Your task to perform on an android device: check android version Image 0: 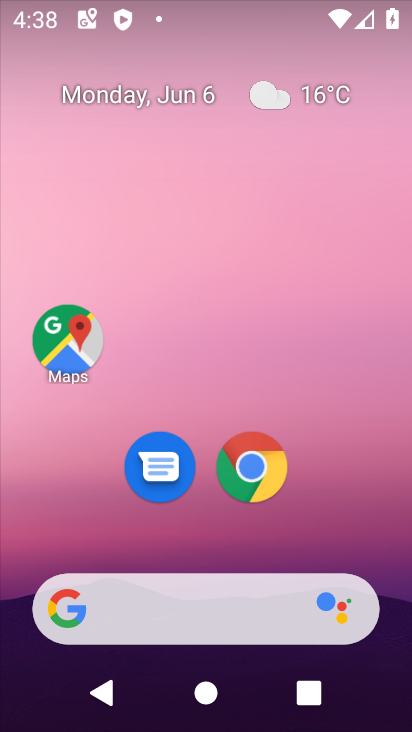
Step 0: drag from (95, 530) to (220, 209)
Your task to perform on an android device: check android version Image 1: 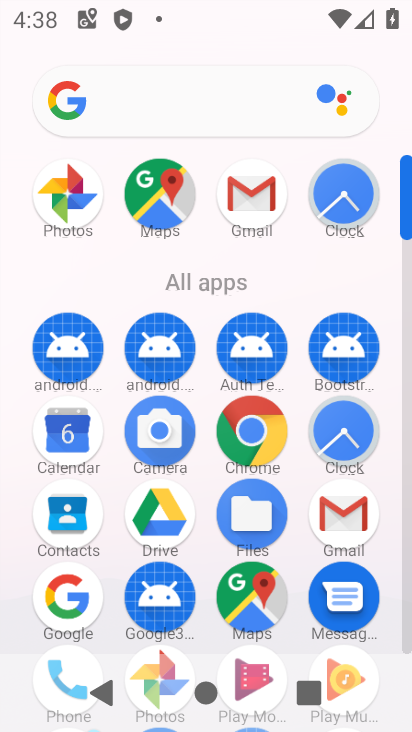
Step 1: drag from (182, 665) to (293, 382)
Your task to perform on an android device: check android version Image 2: 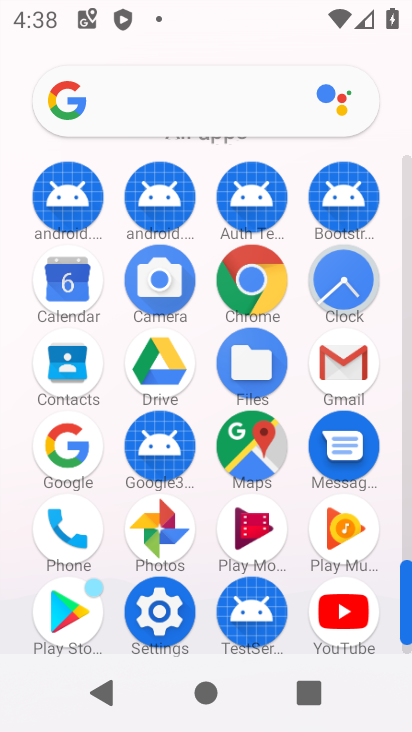
Step 2: click (164, 634)
Your task to perform on an android device: check android version Image 3: 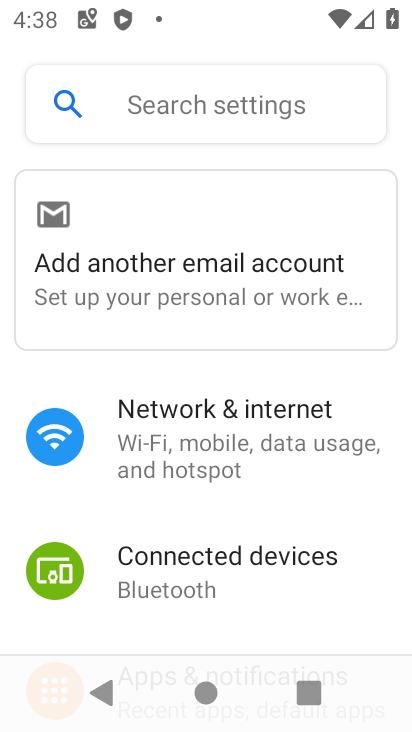
Step 3: drag from (229, 625) to (408, 236)
Your task to perform on an android device: check android version Image 4: 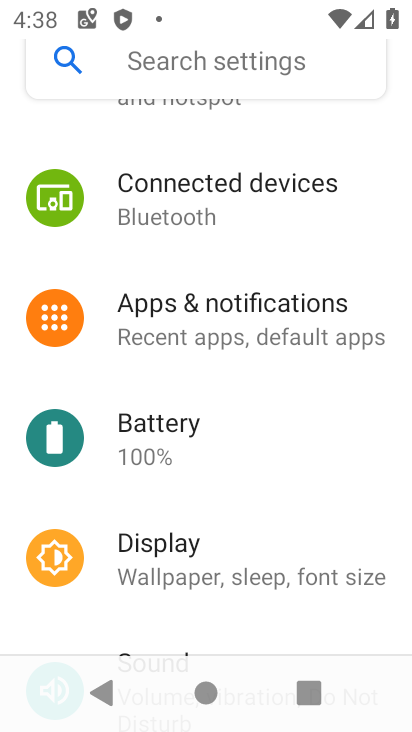
Step 4: drag from (185, 607) to (358, 126)
Your task to perform on an android device: check android version Image 5: 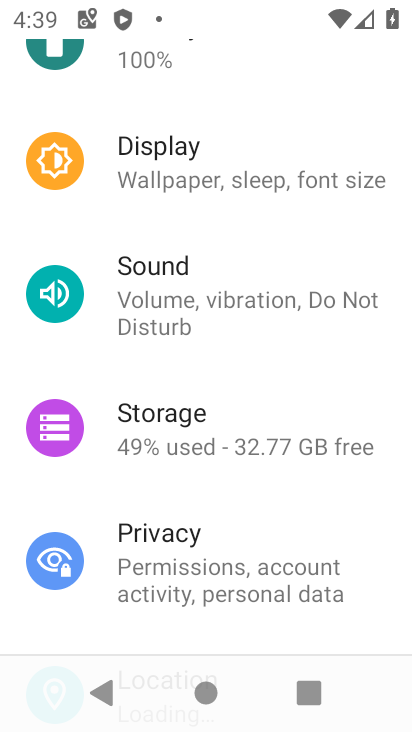
Step 5: drag from (229, 603) to (411, 123)
Your task to perform on an android device: check android version Image 6: 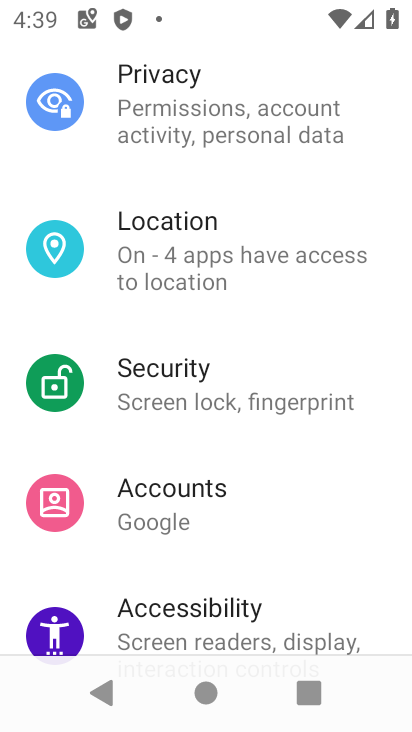
Step 6: drag from (172, 645) to (355, 138)
Your task to perform on an android device: check android version Image 7: 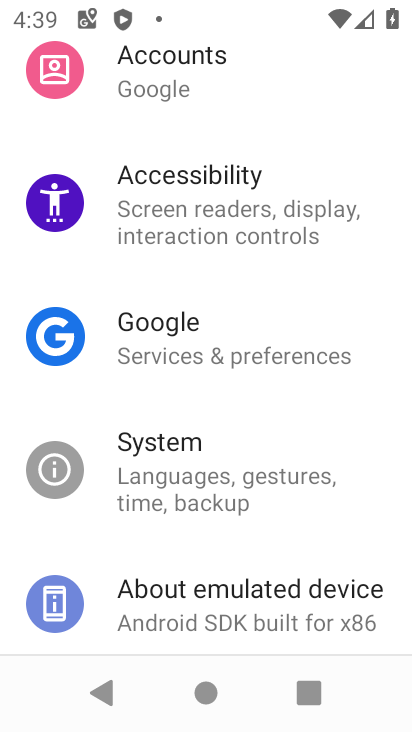
Step 7: drag from (198, 593) to (339, 213)
Your task to perform on an android device: check android version Image 8: 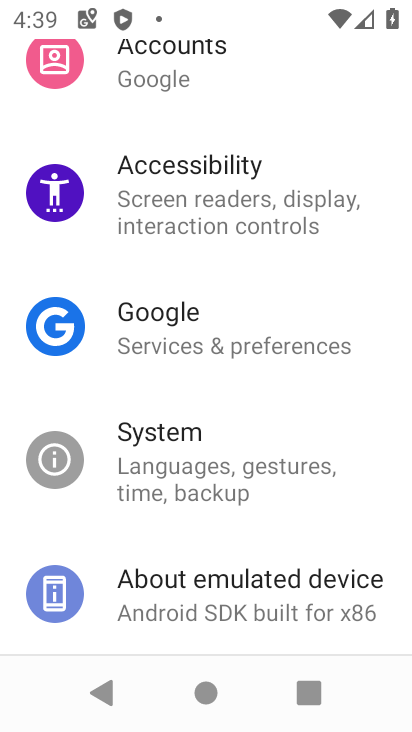
Step 8: click (252, 578)
Your task to perform on an android device: check android version Image 9: 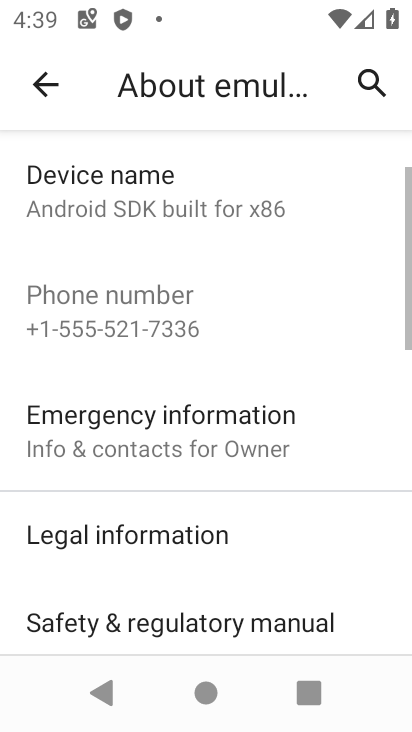
Step 9: drag from (233, 605) to (344, 259)
Your task to perform on an android device: check android version Image 10: 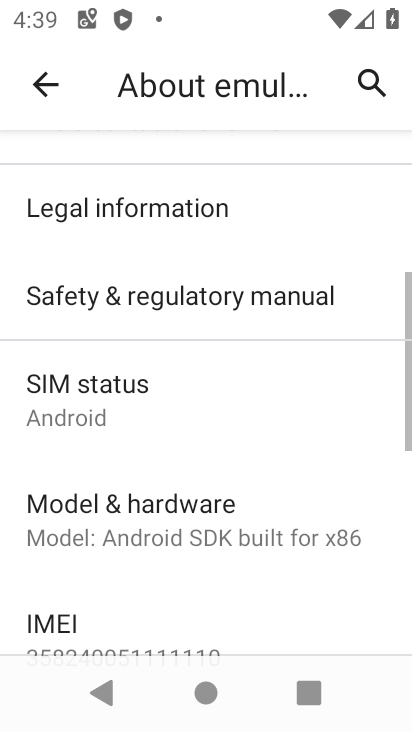
Step 10: drag from (288, 599) to (380, 264)
Your task to perform on an android device: check android version Image 11: 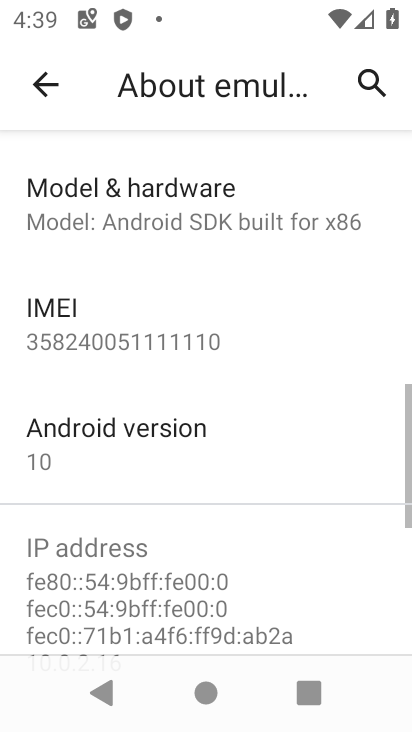
Step 11: click (286, 447)
Your task to perform on an android device: check android version Image 12: 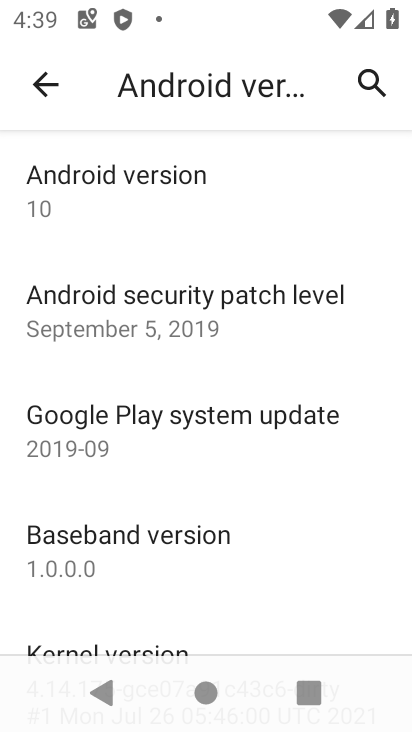
Step 12: task complete